Your task to perform on an android device: turn off javascript in the chrome app Image 0: 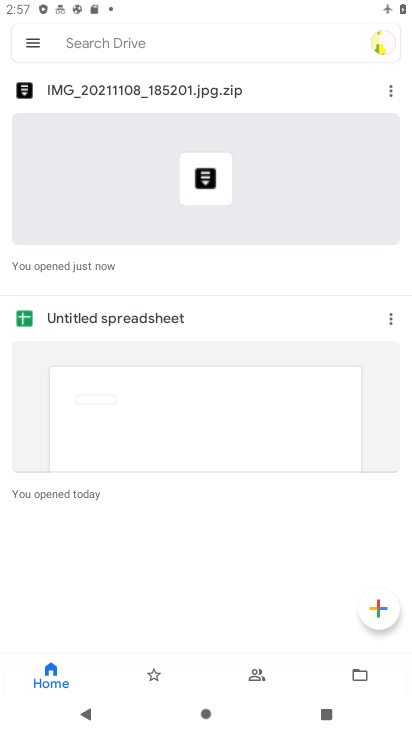
Step 0: press back button
Your task to perform on an android device: turn off javascript in the chrome app Image 1: 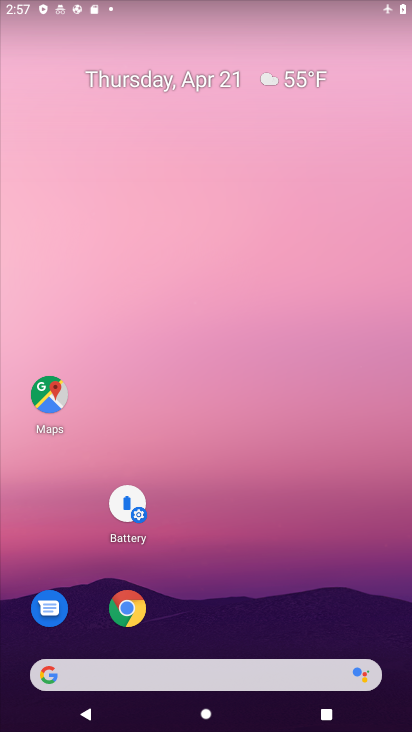
Step 1: drag from (292, 448) to (309, 0)
Your task to perform on an android device: turn off javascript in the chrome app Image 2: 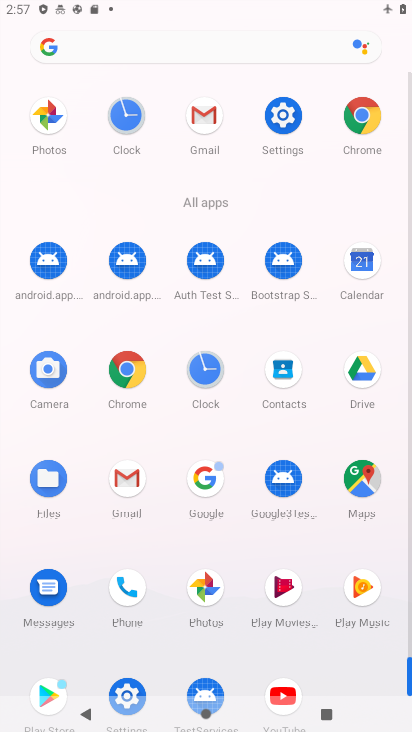
Step 2: click (355, 105)
Your task to perform on an android device: turn off javascript in the chrome app Image 3: 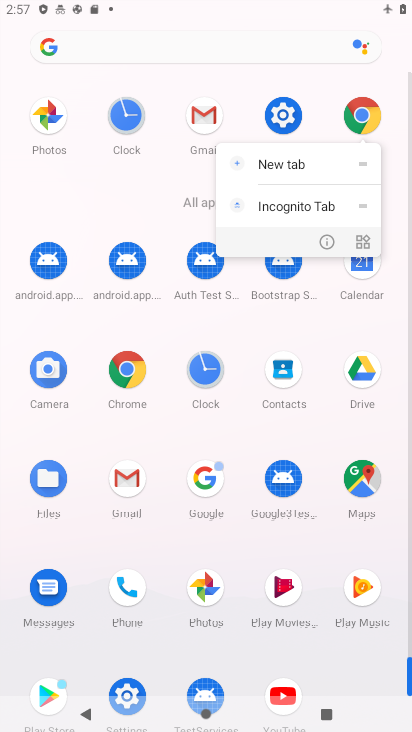
Step 3: click (359, 110)
Your task to perform on an android device: turn off javascript in the chrome app Image 4: 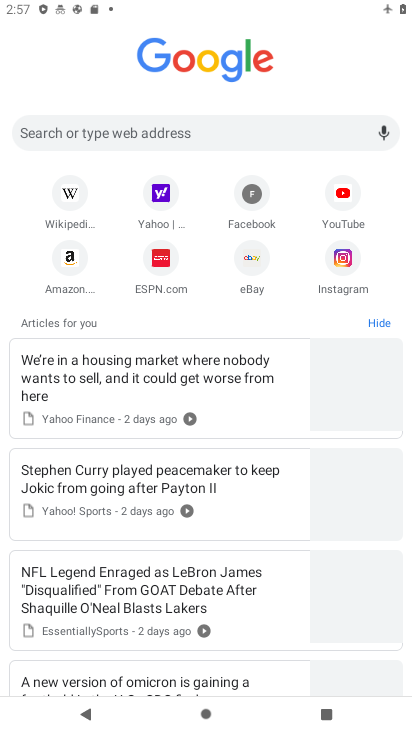
Step 4: click (354, 446)
Your task to perform on an android device: turn off javascript in the chrome app Image 5: 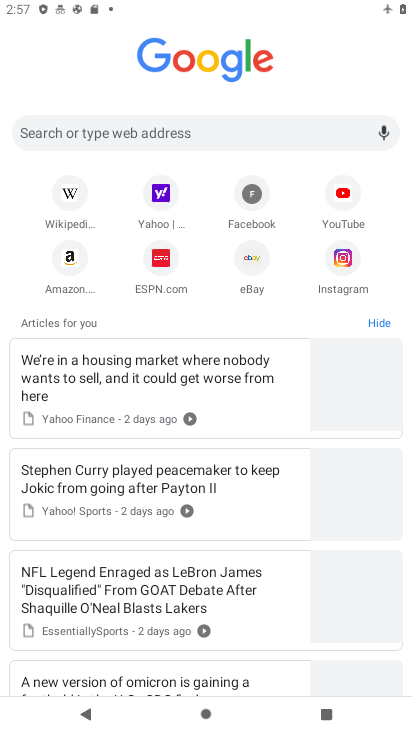
Step 5: drag from (280, 98) to (320, 331)
Your task to perform on an android device: turn off javascript in the chrome app Image 6: 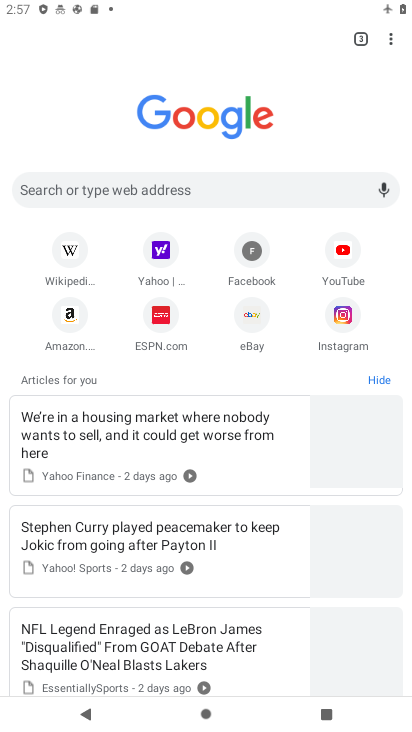
Step 6: drag from (390, 42) to (296, 335)
Your task to perform on an android device: turn off javascript in the chrome app Image 7: 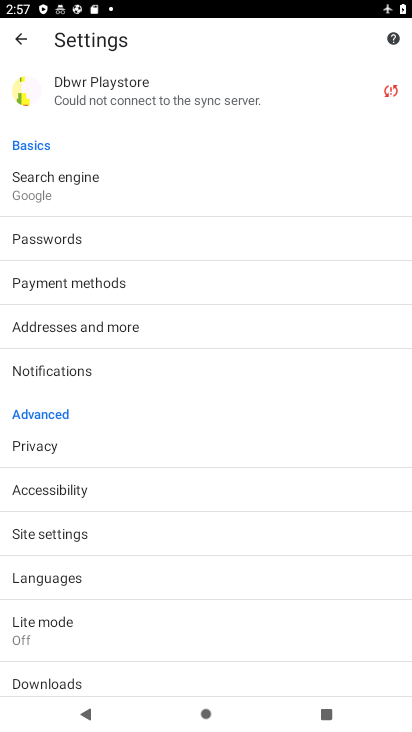
Step 7: click (108, 538)
Your task to perform on an android device: turn off javascript in the chrome app Image 8: 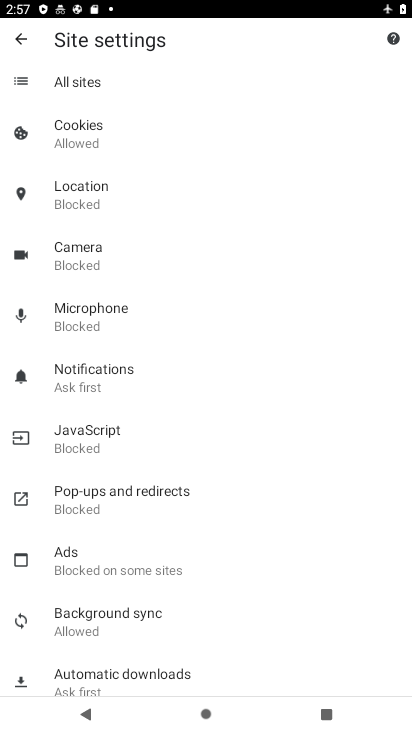
Step 8: click (82, 435)
Your task to perform on an android device: turn off javascript in the chrome app Image 9: 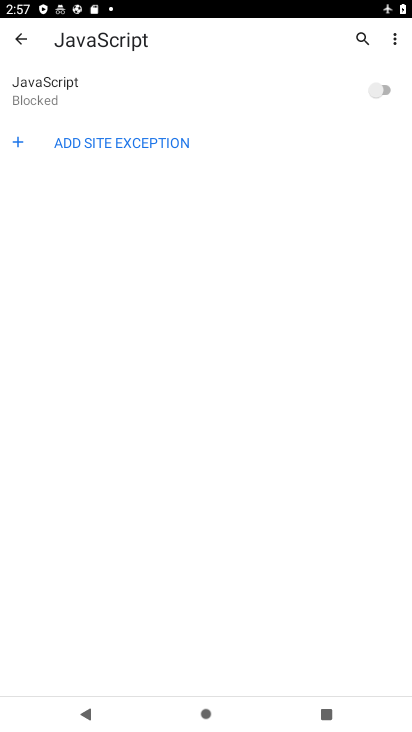
Step 9: task complete